Your task to perform on an android device: add a contact Image 0: 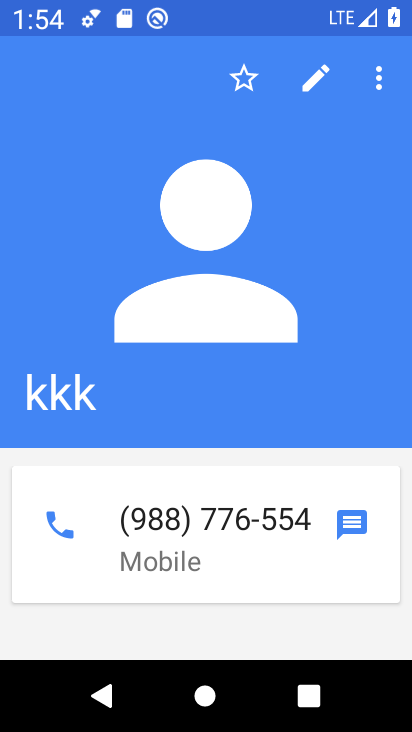
Step 0: press home button
Your task to perform on an android device: add a contact Image 1: 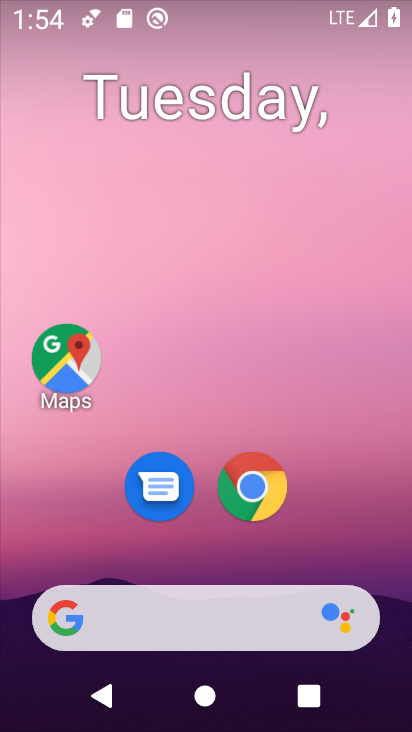
Step 1: drag from (379, 535) to (356, 80)
Your task to perform on an android device: add a contact Image 2: 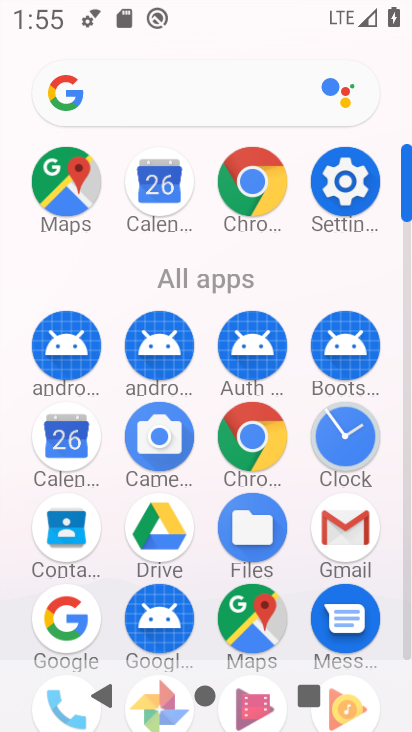
Step 2: click (59, 544)
Your task to perform on an android device: add a contact Image 3: 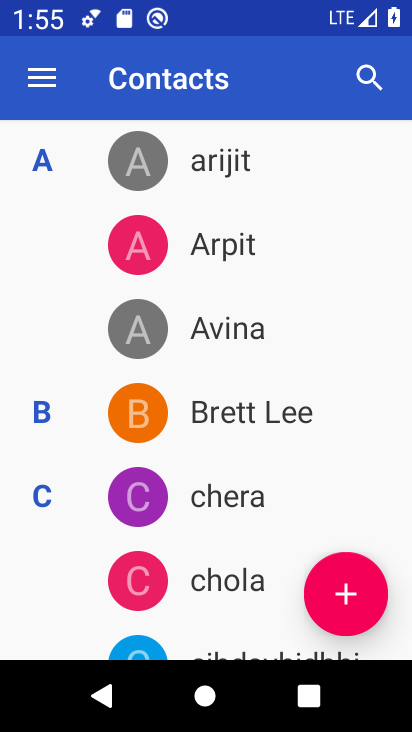
Step 3: click (334, 577)
Your task to perform on an android device: add a contact Image 4: 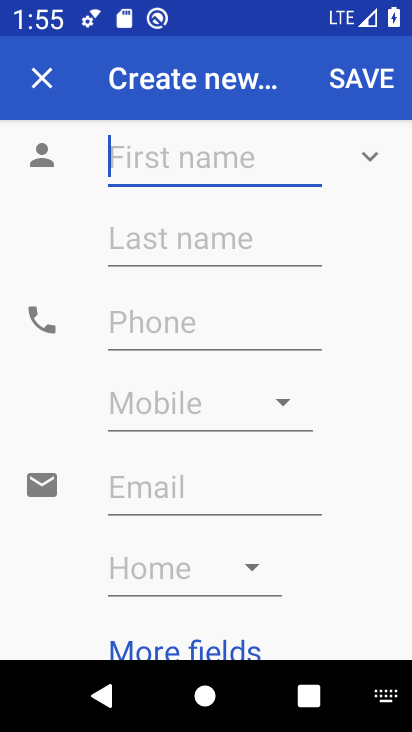
Step 4: type "kkk"
Your task to perform on an android device: add a contact Image 5: 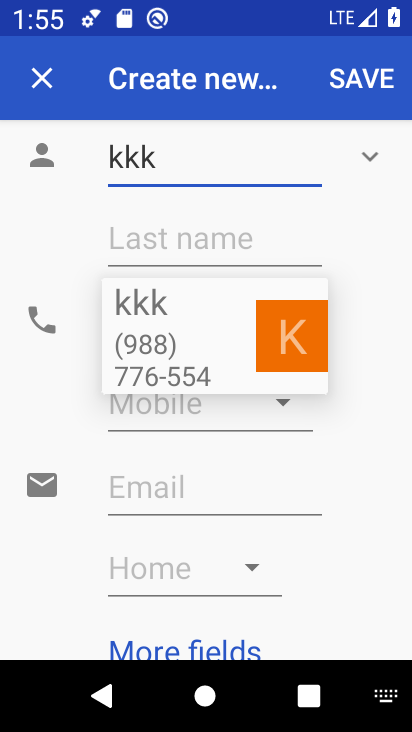
Step 5: click (359, 310)
Your task to perform on an android device: add a contact Image 6: 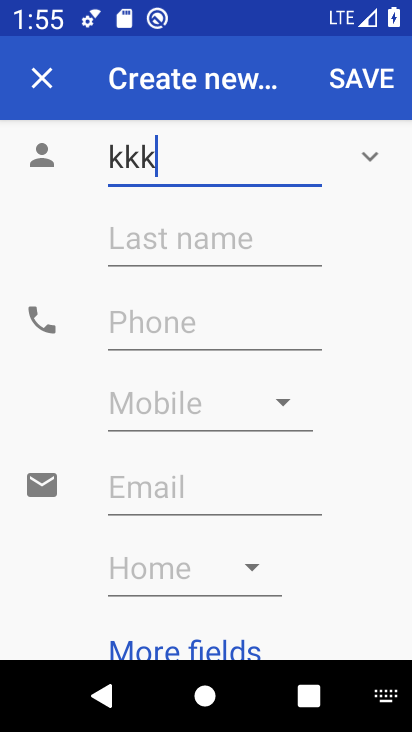
Step 6: click (243, 349)
Your task to perform on an android device: add a contact Image 7: 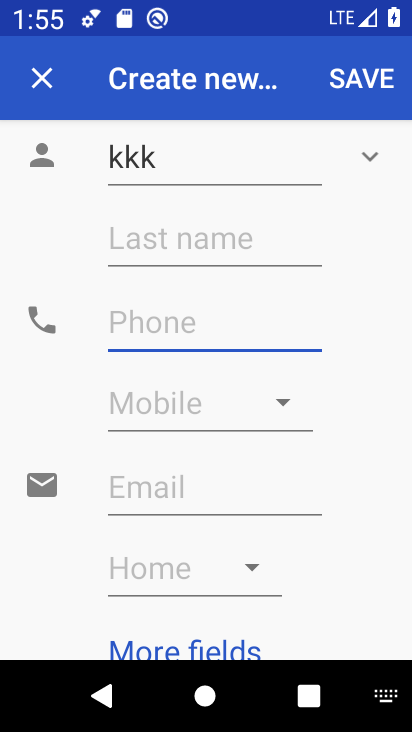
Step 7: type "2334556666"
Your task to perform on an android device: add a contact Image 8: 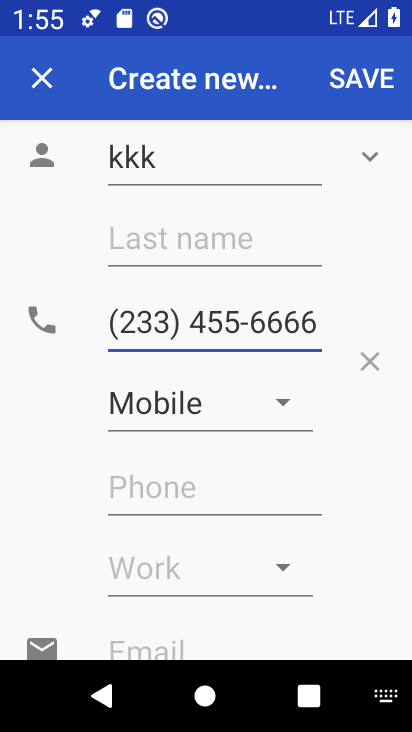
Step 8: click (368, 80)
Your task to perform on an android device: add a contact Image 9: 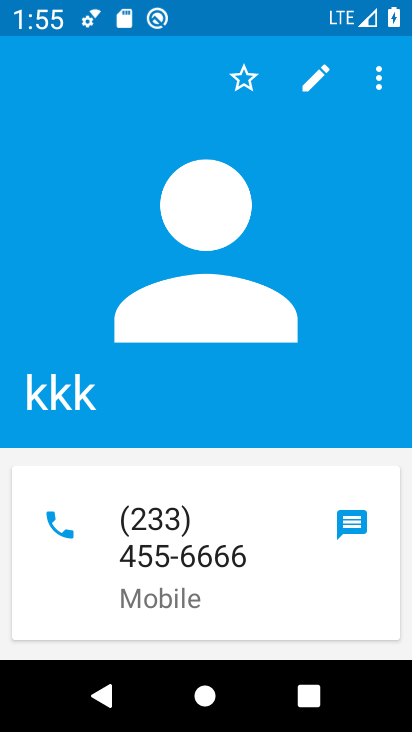
Step 9: task complete